Your task to perform on an android device: turn on airplane mode Image 0: 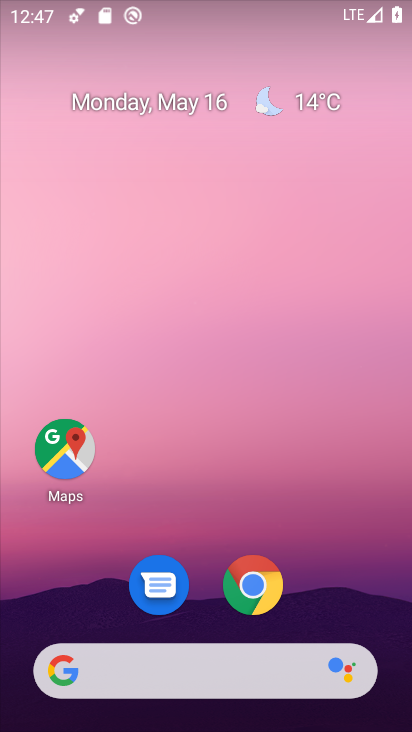
Step 0: drag from (260, 443) to (241, 15)
Your task to perform on an android device: turn on airplane mode Image 1: 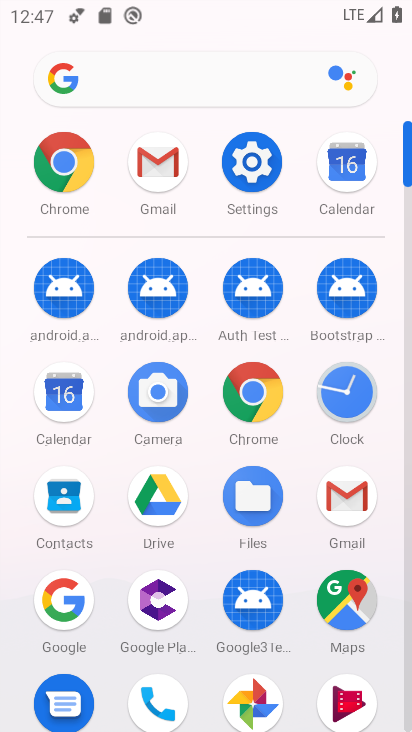
Step 1: click (257, 159)
Your task to perform on an android device: turn on airplane mode Image 2: 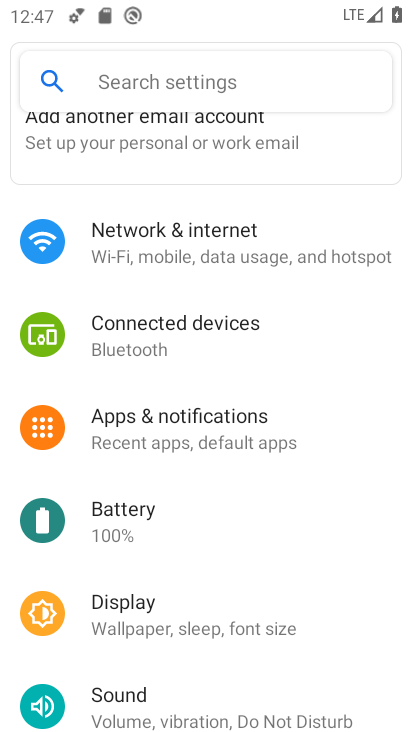
Step 2: click (252, 242)
Your task to perform on an android device: turn on airplane mode Image 3: 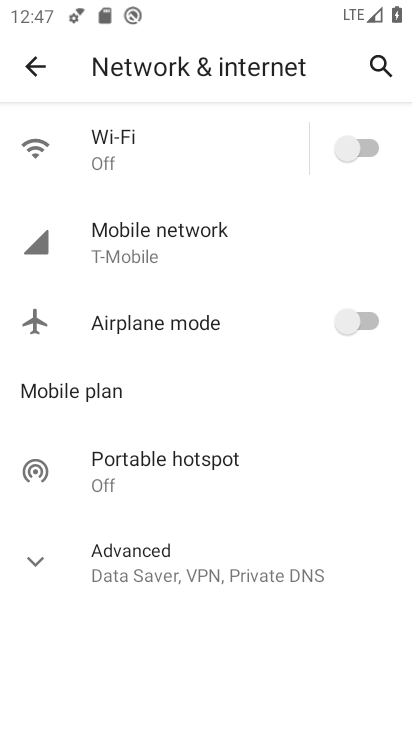
Step 3: click (362, 317)
Your task to perform on an android device: turn on airplane mode Image 4: 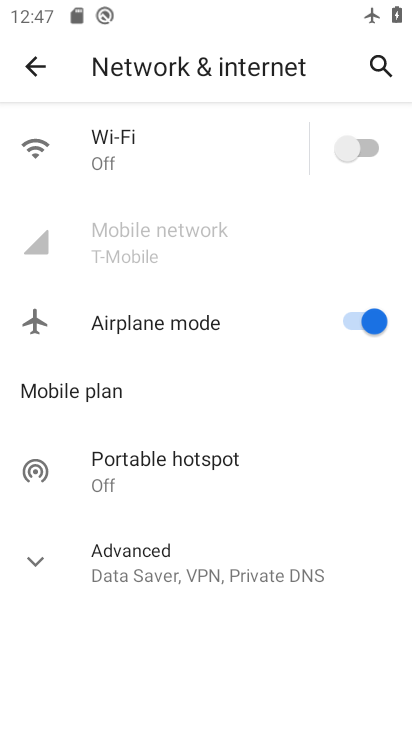
Step 4: task complete